Your task to perform on an android device: Clear all items from cart on walmart.com. Add "energizer triple a" to the cart on walmart.com Image 0: 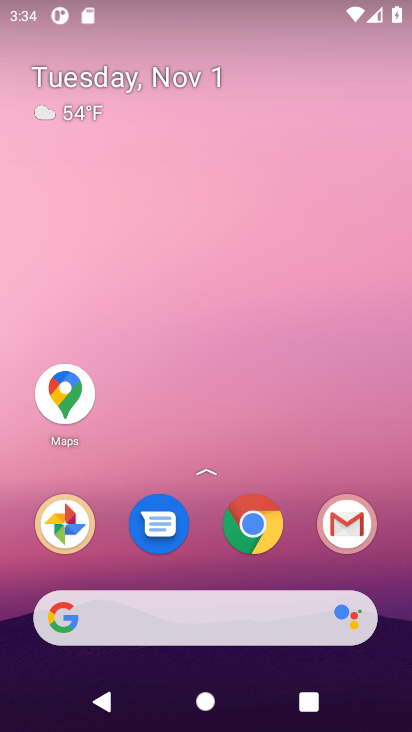
Step 0: click (251, 525)
Your task to perform on an android device: Clear all items from cart on walmart.com. Add "energizer triple a" to the cart on walmart.com Image 1: 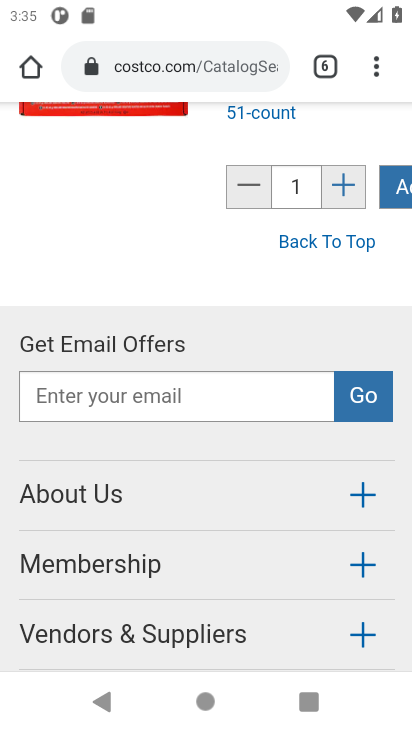
Step 1: click (195, 45)
Your task to perform on an android device: Clear all items from cart on walmart.com. Add "energizer triple a" to the cart on walmart.com Image 2: 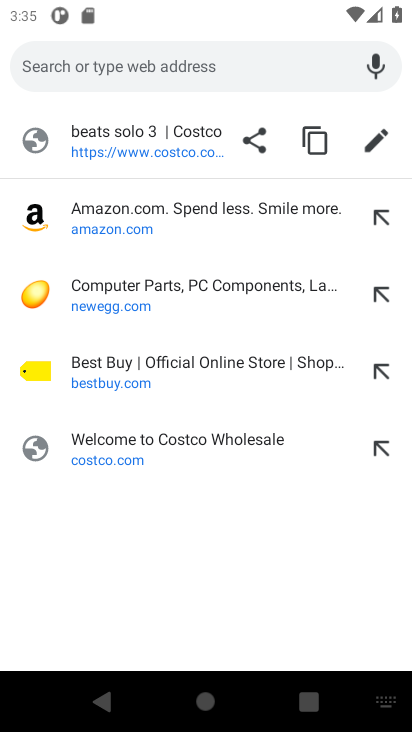
Step 2: type "walmart.com"
Your task to perform on an android device: Clear all items from cart on walmart.com. Add "energizer triple a" to the cart on walmart.com Image 3: 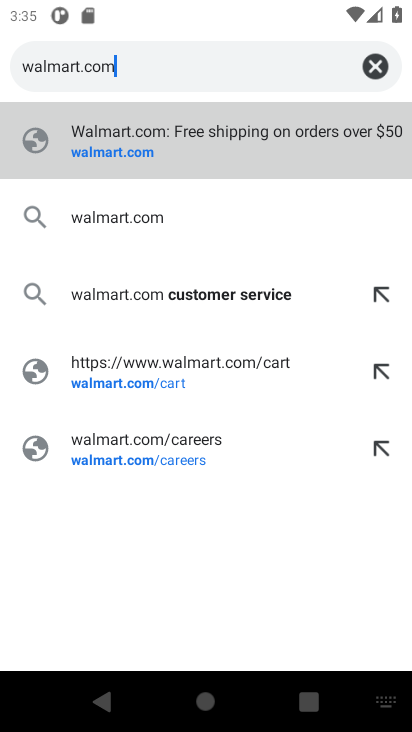
Step 3: click (100, 137)
Your task to perform on an android device: Clear all items from cart on walmart.com. Add "energizer triple a" to the cart on walmart.com Image 4: 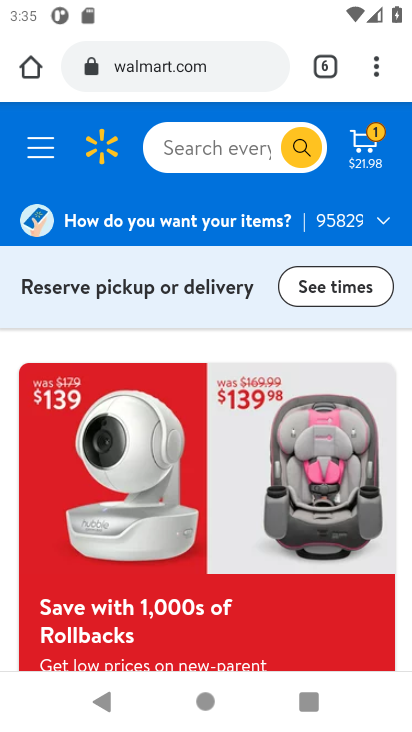
Step 4: click (367, 139)
Your task to perform on an android device: Clear all items from cart on walmart.com. Add "energizer triple a" to the cart on walmart.com Image 5: 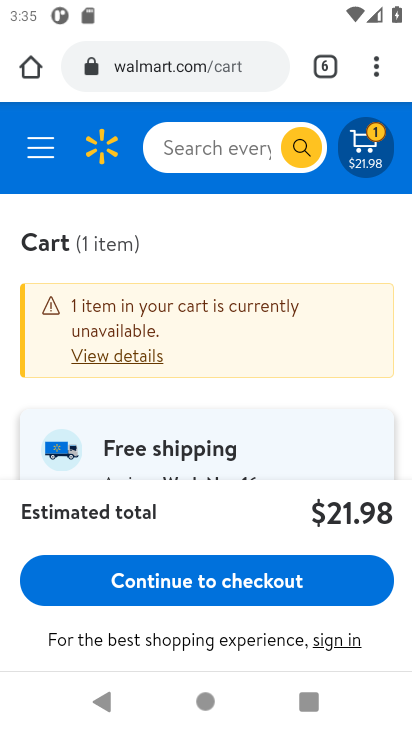
Step 5: drag from (329, 391) to (281, 83)
Your task to perform on an android device: Clear all items from cart on walmart.com. Add "energizer triple a" to the cart on walmart.com Image 6: 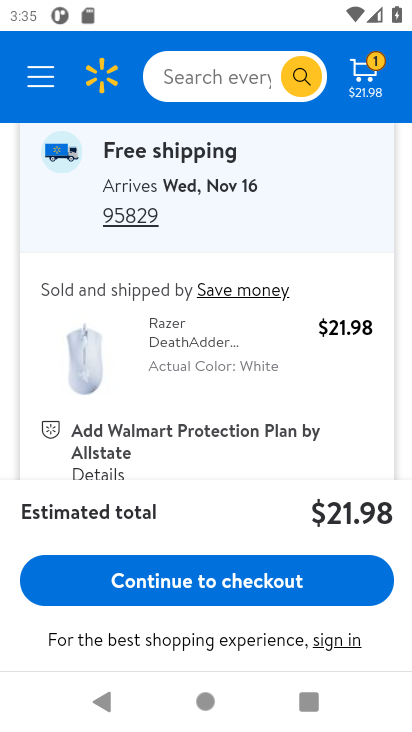
Step 6: drag from (355, 432) to (315, 137)
Your task to perform on an android device: Clear all items from cart on walmart.com. Add "energizer triple a" to the cart on walmart.com Image 7: 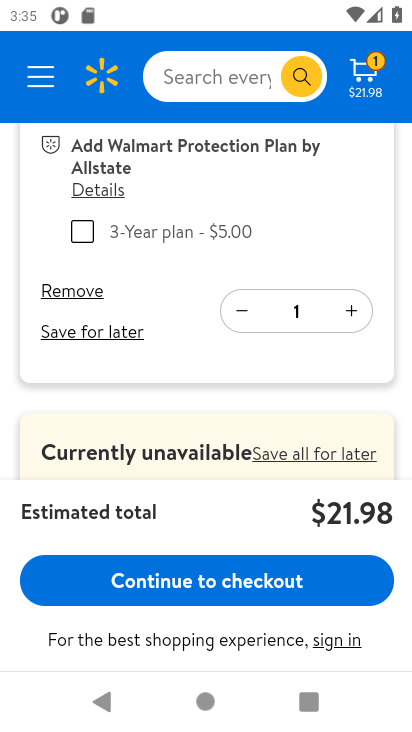
Step 7: click (53, 288)
Your task to perform on an android device: Clear all items from cart on walmart.com. Add "energizer triple a" to the cart on walmart.com Image 8: 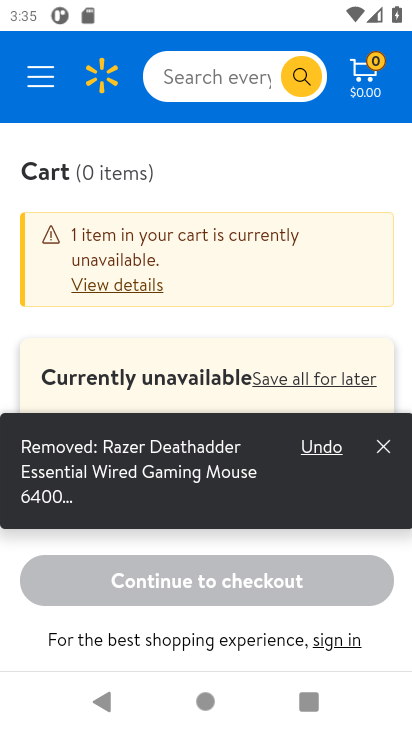
Step 8: click (382, 444)
Your task to perform on an android device: Clear all items from cart on walmart.com. Add "energizer triple a" to the cart on walmart.com Image 9: 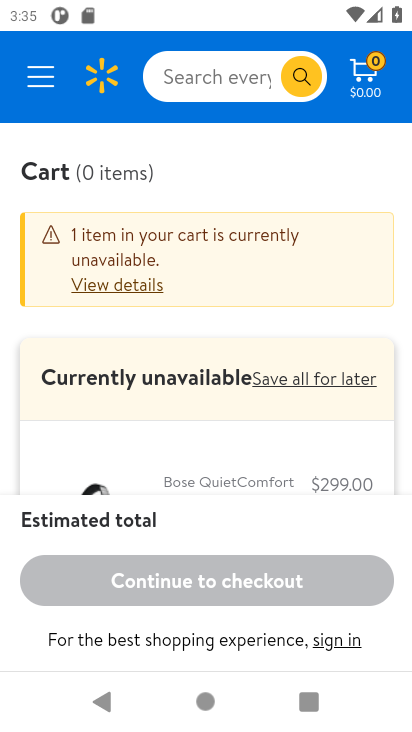
Step 9: drag from (286, 453) to (292, 243)
Your task to perform on an android device: Clear all items from cart on walmart.com. Add "energizer triple a" to the cart on walmart.com Image 10: 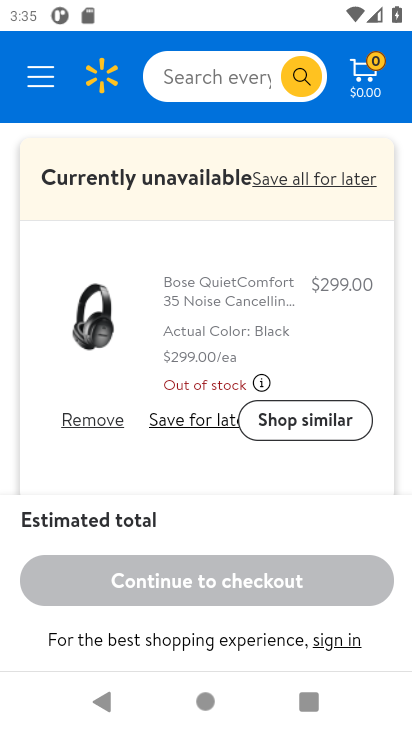
Step 10: click (190, 74)
Your task to perform on an android device: Clear all items from cart on walmart.com. Add "energizer triple a" to the cart on walmart.com Image 11: 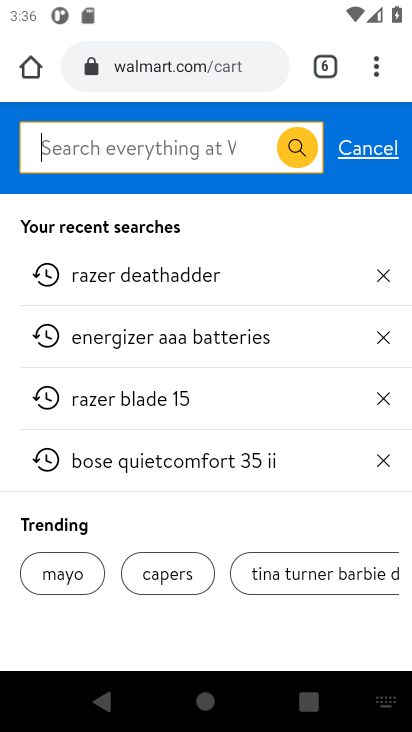
Step 11: type "energizer triple a"
Your task to perform on an android device: Clear all items from cart on walmart.com. Add "energizer triple a" to the cart on walmart.com Image 12: 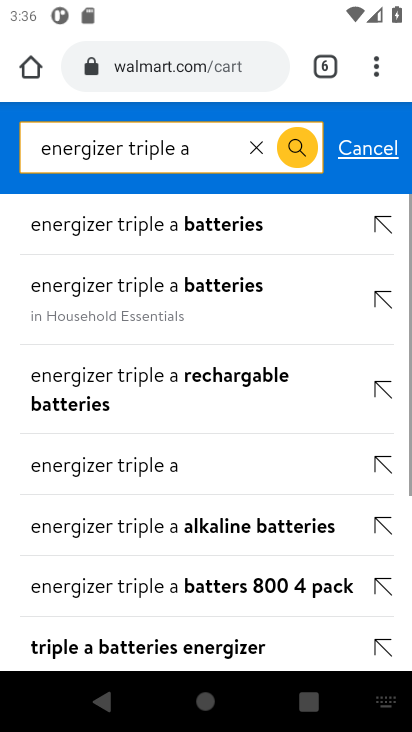
Step 12: click (113, 218)
Your task to perform on an android device: Clear all items from cart on walmart.com. Add "energizer triple a" to the cart on walmart.com Image 13: 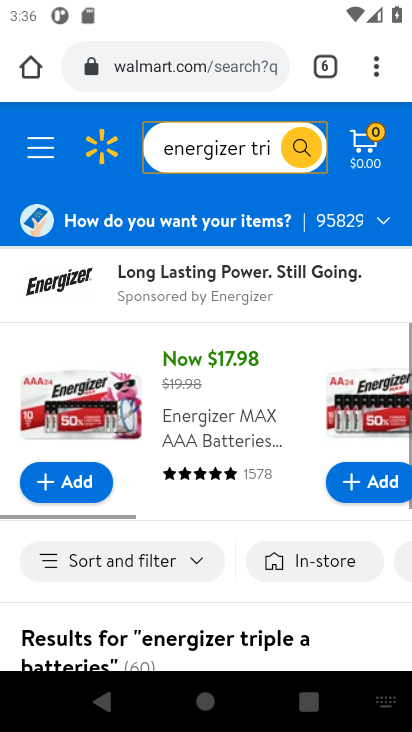
Step 13: drag from (241, 515) to (230, 203)
Your task to perform on an android device: Clear all items from cart on walmart.com. Add "energizer triple a" to the cart on walmart.com Image 14: 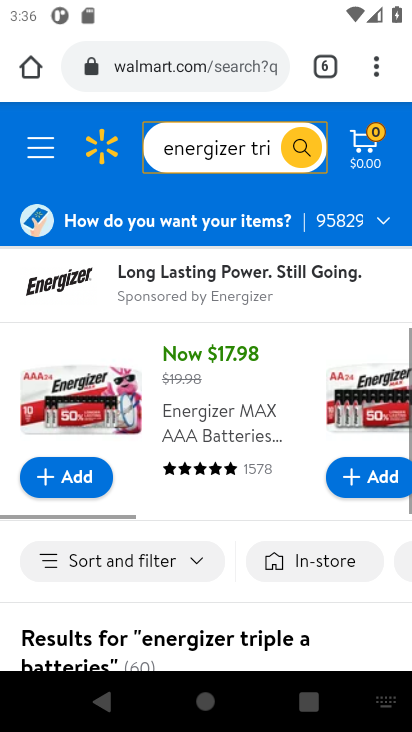
Step 14: drag from (215, 641) to (214, 290)
Your task to perform on an android device: Clear all items from cart on walmart.com. Add "energizer triple a" to the cart on walmart.com Image 15: 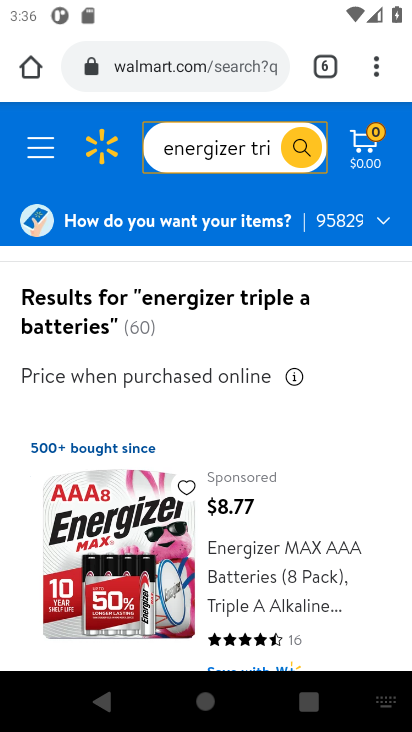
Step 15: drag from (251, 550) to (249, 395)
Your task to perform on an android device: Clear all items from cart on walmart.com. Add "energizer triple a" to the cart on walmart.com Image 16: 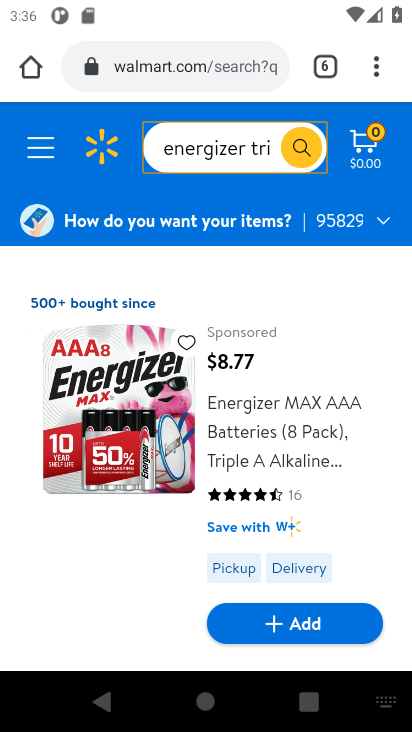
Step 16: drag from (186, 594) to (201, 445)
Your task to perform on an android device: Clear all items from cart on walmart.com. Add "energizer triple a" to the cart on walmart.com Image 17: 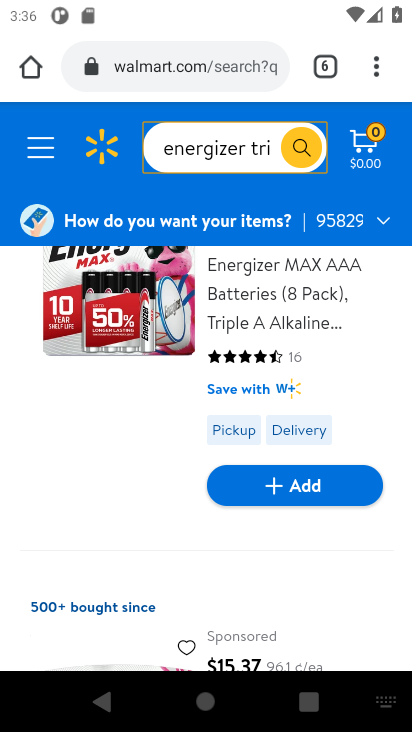
Step 17: click (286, 484)
Your task to perform on an android device: Clear all items from cart on walmart.com. Add "energizer triple a" to the cart on walmart.com Image 18: 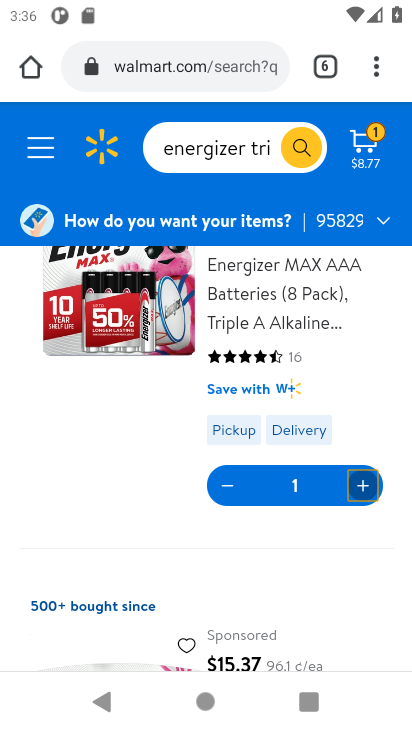
Step 18: task complete